Your task to perform on an android device: add a label to a message in the gmail app Image 0: 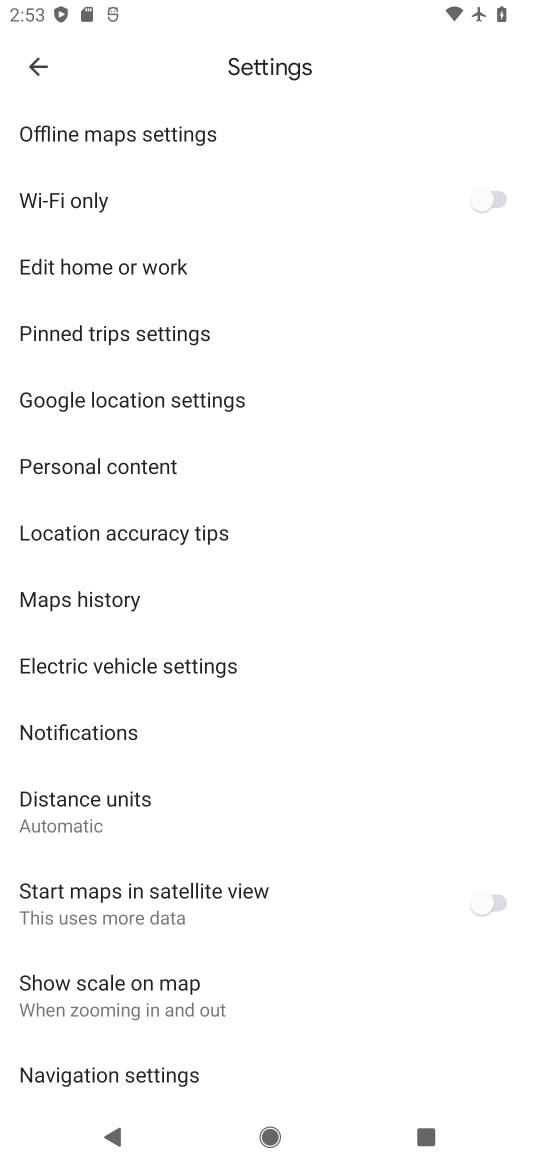
Step 0: press home button
Your task to perform on an android device: add a label to a message in the gmail app Image 1: 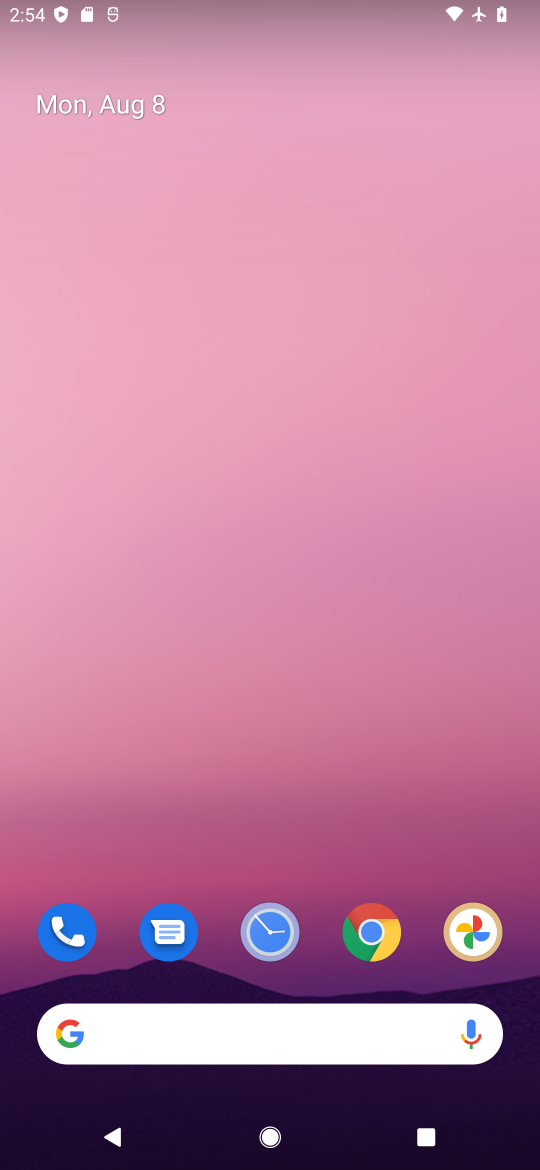
Step 1: drag from (387, 740) to (497, 2)
Your task to perform on an android device: add a label to a message in the gmail app Image 2: 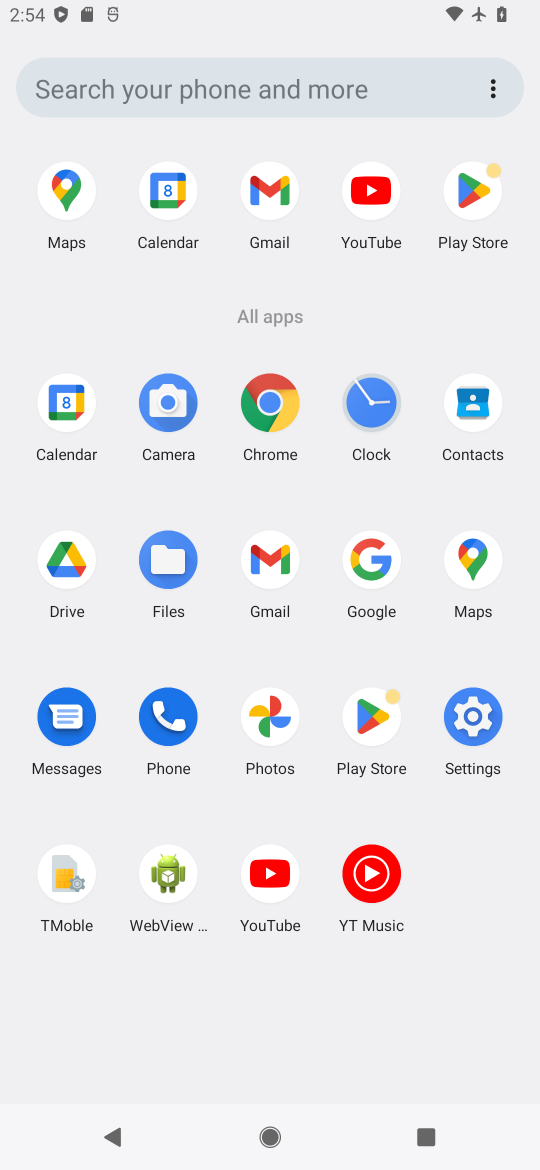
Step 2: click (273, 545)
Your task to perform on an android device: add a label to a message in the gmail app Image 3: 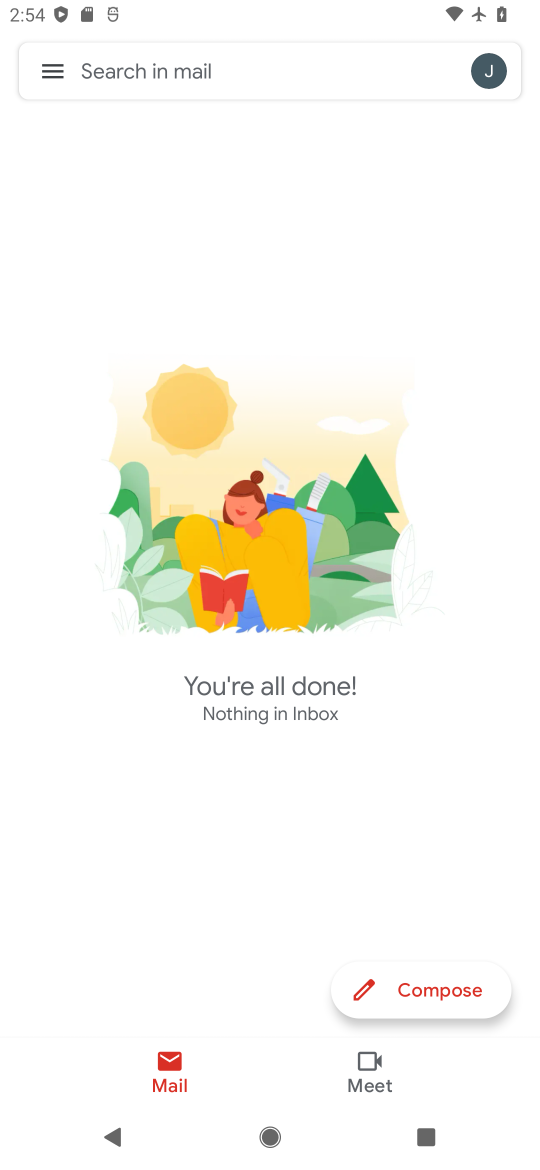
Step 3: click (51, 61)
Your task to perform on an android device: add a label to a message in the gmail app Image 4: 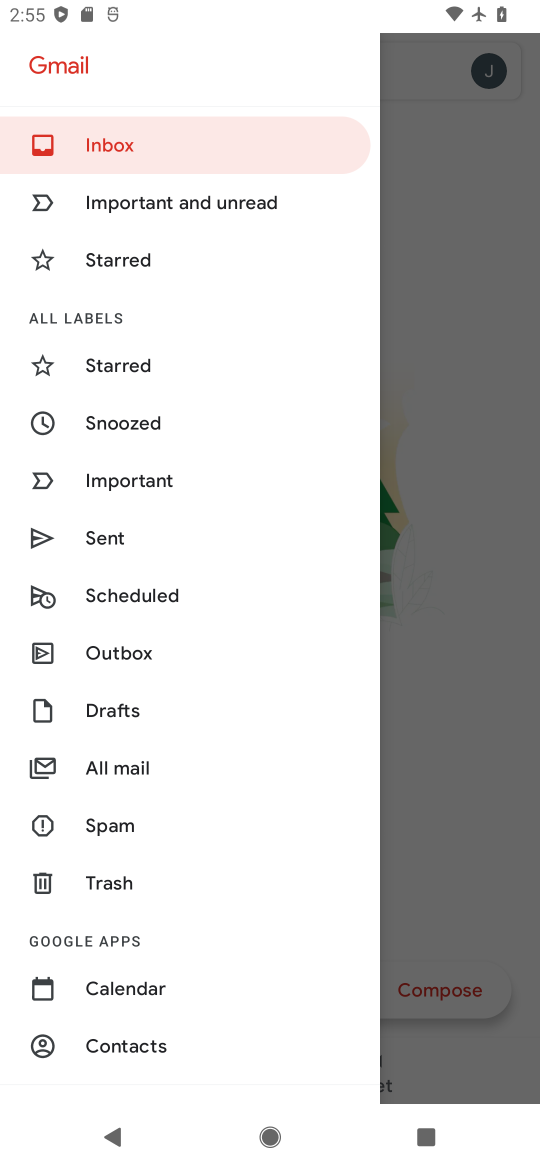
Step 4: click (146, 772)
Your task to perform on an android device: add a label to a message in the gmail app Image 5: 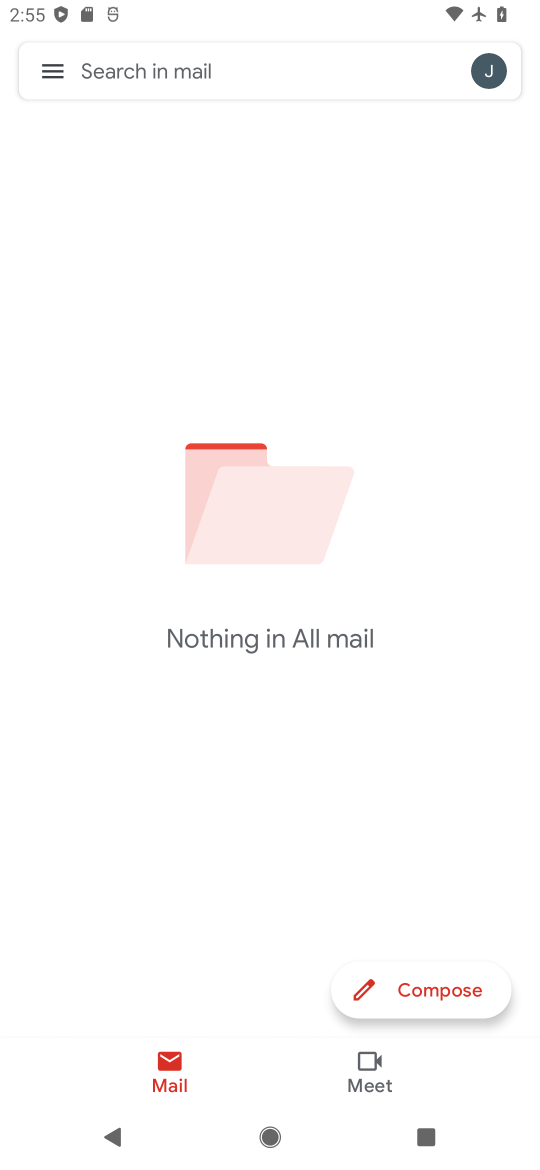
Step 5: task complete